Your task to perform on an android device: Is it going to rain today? Image 0: 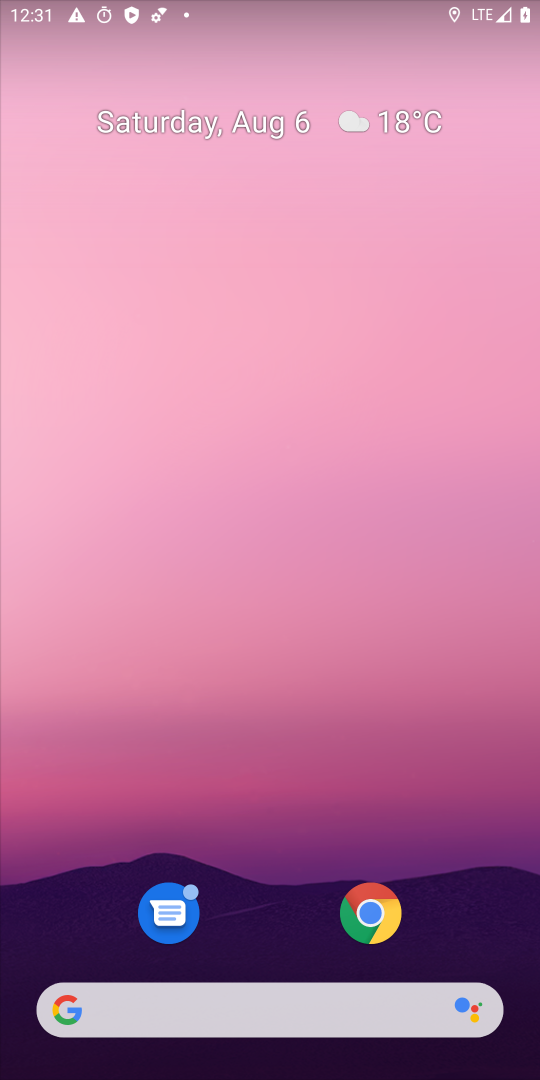
Step 0: press home button
Your task to perform on an android device: Is it going to rain today? Image 1: 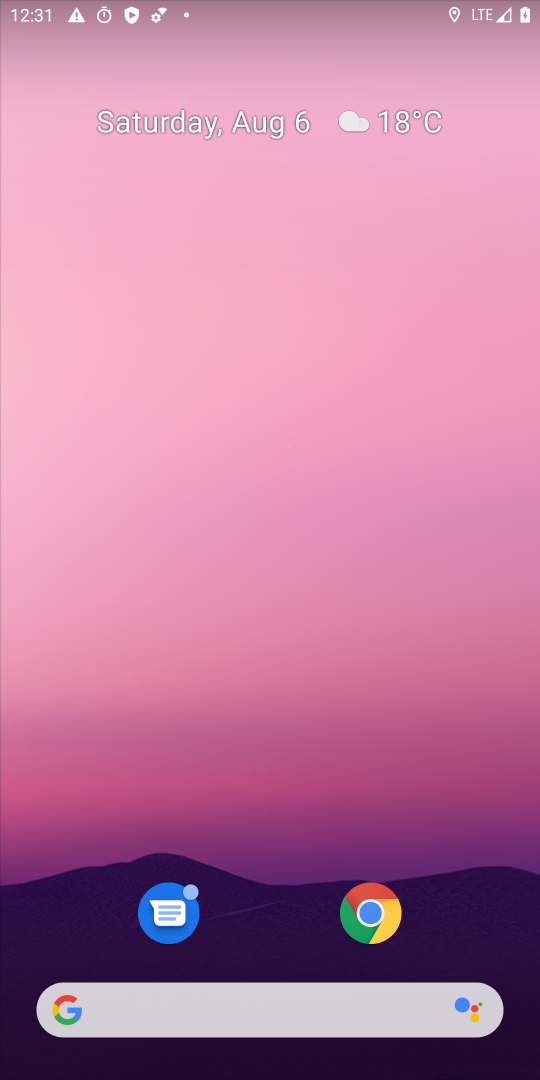
Step 1: press home button
Your task to perform on an android device: Is it going to rain today? Image 2: 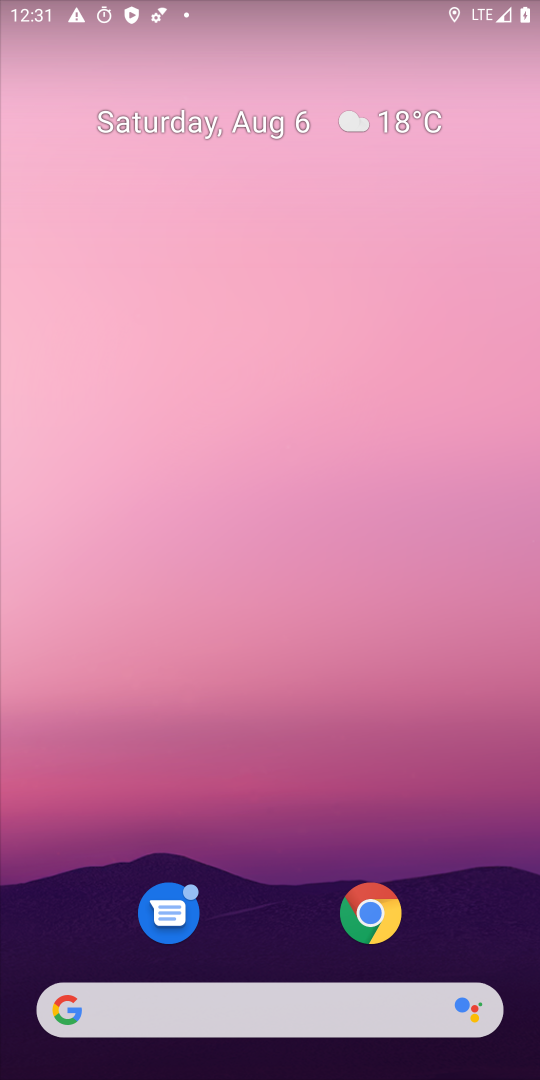
Step 2: drag from (463, 872) to (452, 332)
Your task to perform on an android device: Is it going to rain today? Image 3: 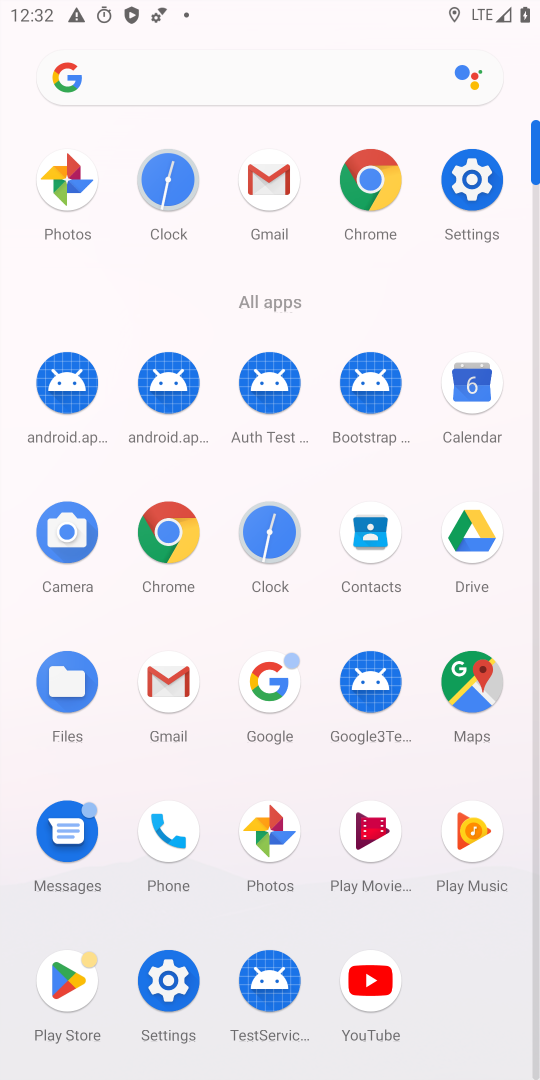
Step 3: click (276, 692)
Your task to perform on an android device: Is it going to rain today? Image 4: 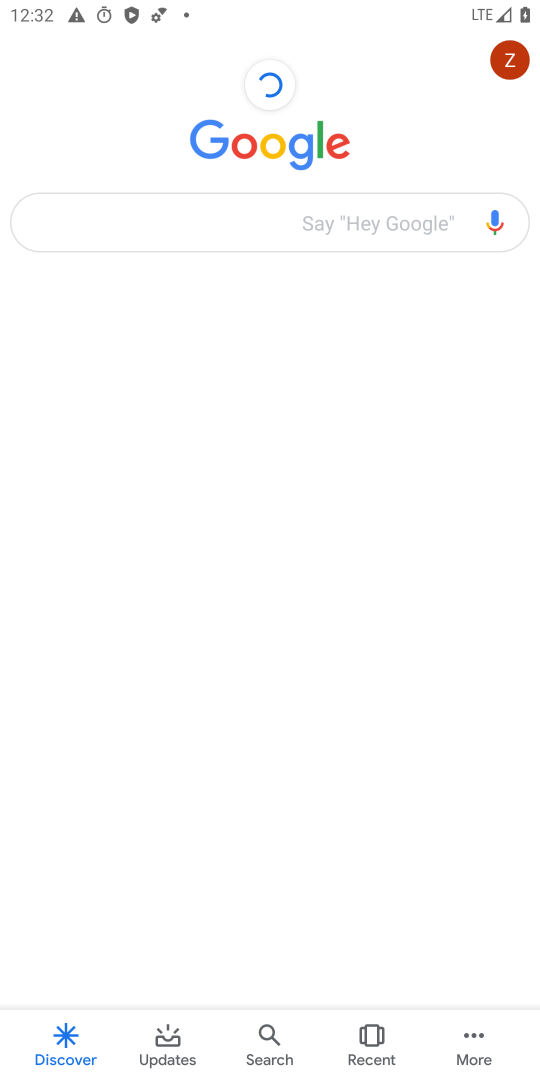
Step 4: click (232, 222)
Your task to perform on an android device: Is it going to rain today? Image 5: 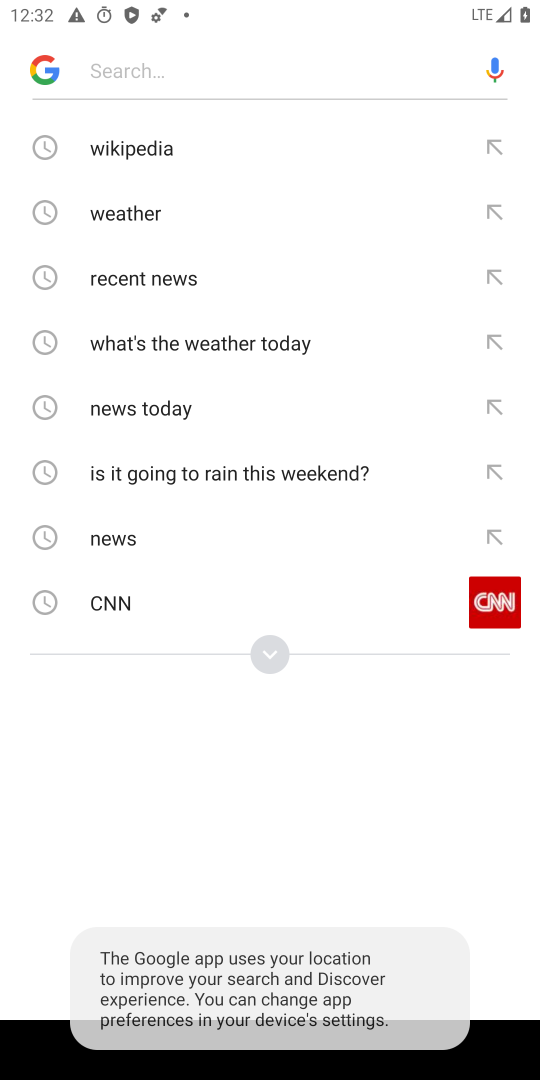
Step 5: click (178, 214)
Your task to perform on an android device: Is it going to rain today? Image 6: 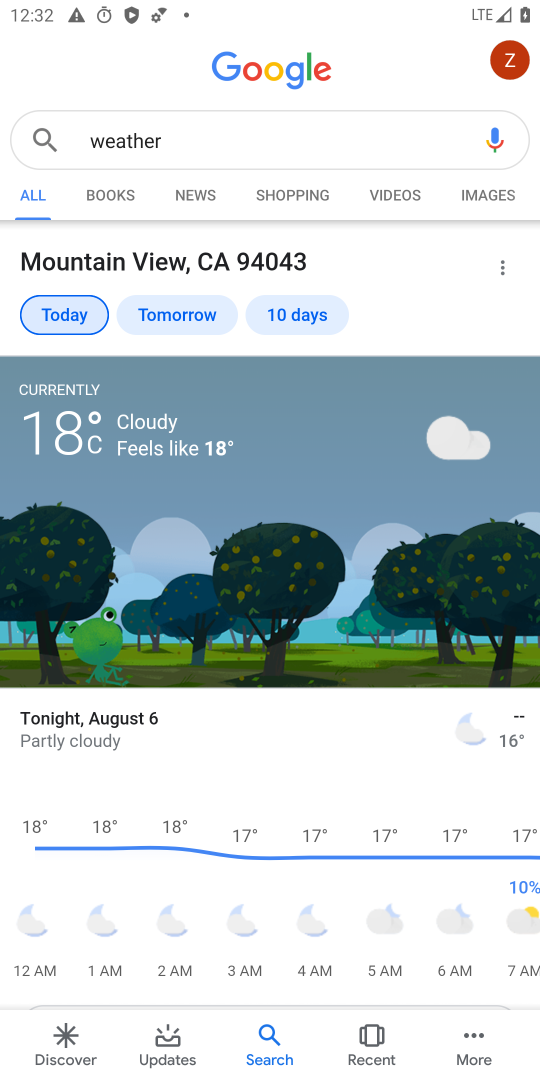
Step 6: task complete